Your task to perform on an android device: set the stopwatch Image 0: 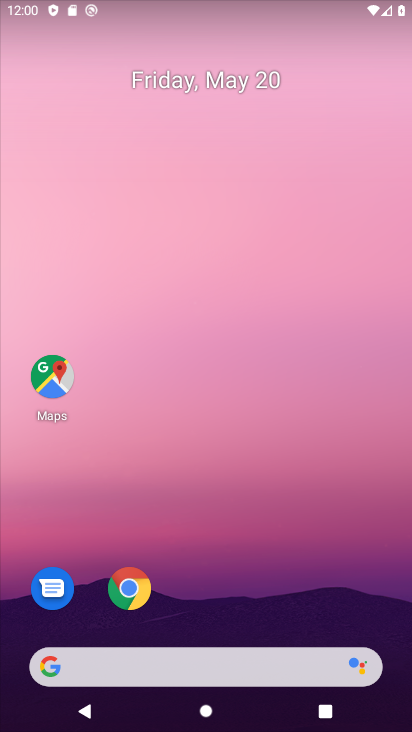
Step 0: drag from (232, 593) to (205, 233)
Your task to perform on an android device: set the stopwatch Image 1: 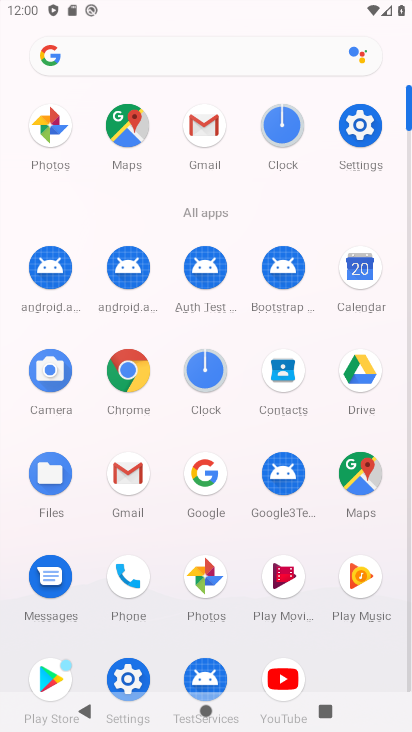
Step 1: drag from (237, 622) to (237, 211)
Your task to perform on an android device: set the stopwatch Image 2: 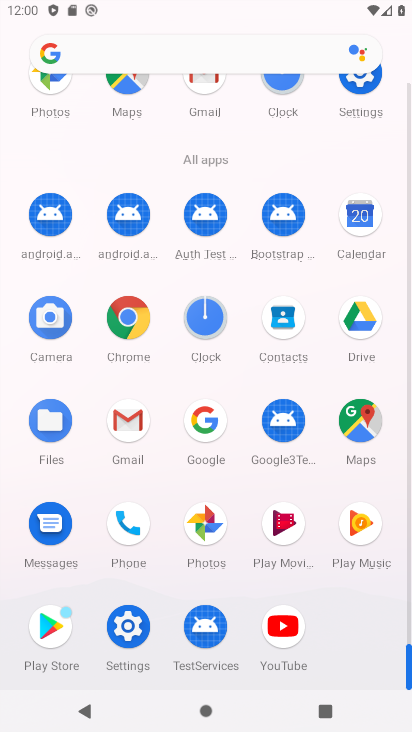
Step 2: click (207, 321)
Your task to perform on an android device: set the stopwatch Image 3: 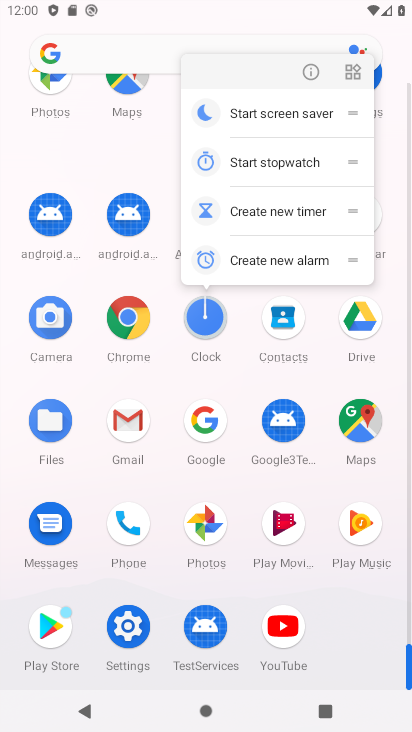
Step 3: click (215, 341)
Your task to perform on an android device: set the stopwatch Image 4: 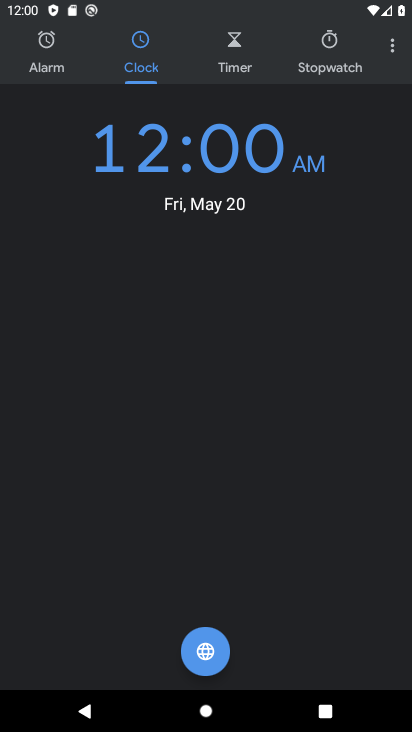
Step 4: click (322, 48)
Your task to perform on an android device: set the stopwatch Image 5: 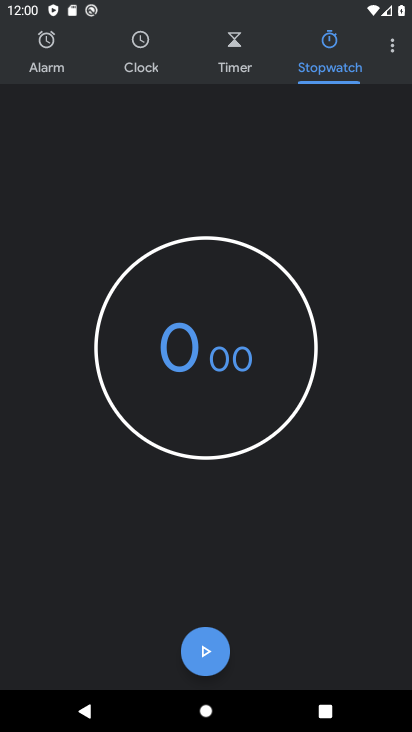
Step 5: click (197, 640)
Your task to perform on an android device: set the stopwatch Image 6: 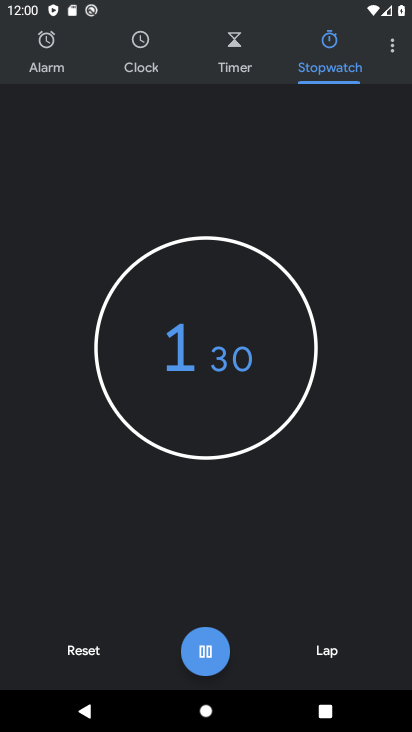
Step 6: task complete